Your task to perform on an android device: Open Youtube and go to the subscriptions tab Image 0: 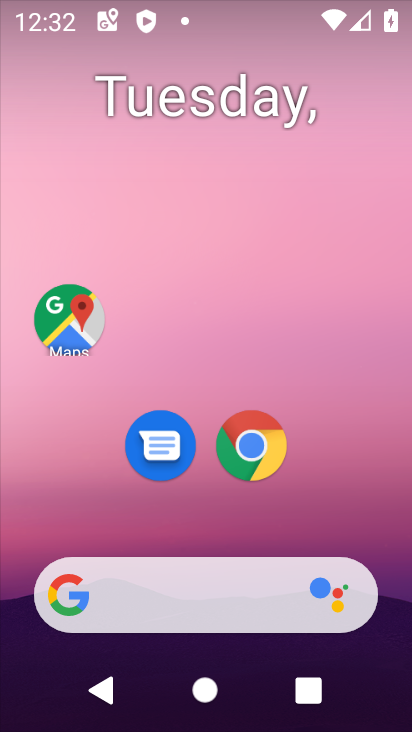
Step 0: drag from (328, 477) to (373, 16)
Your task to perform on an android device: Open Youtube and go to the subscriptions tab Image 1: 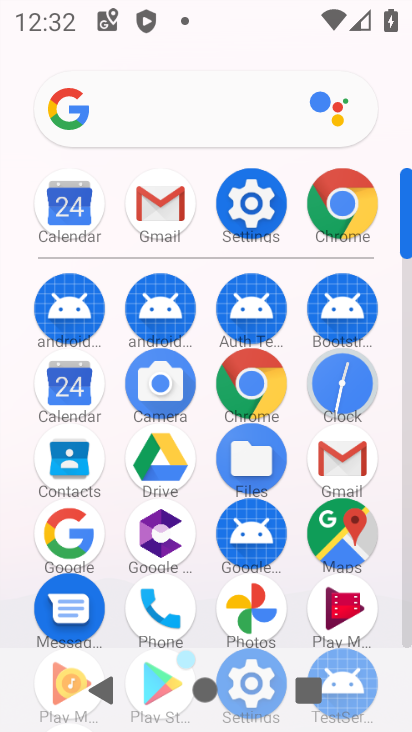
Step 1: drag from (386, 597) to (378, 210)
Your task to perform on an android device: Open Youtube and go to the subscriptions tab Image 2: 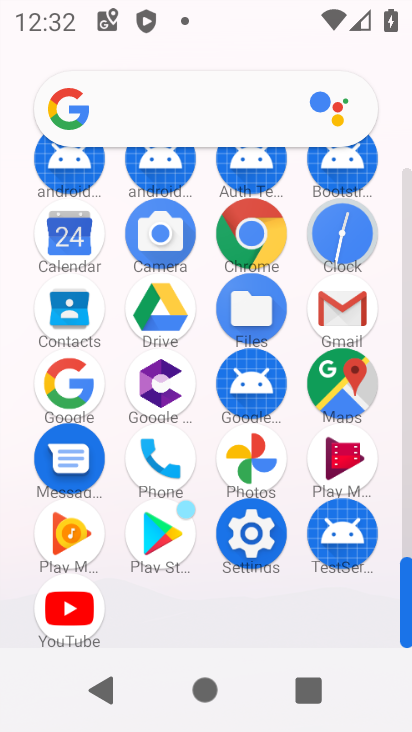
Step 2: click (65, 614)
Your task to perform on an android device: Open Youtube and go to the subscriptions tab Image 3: 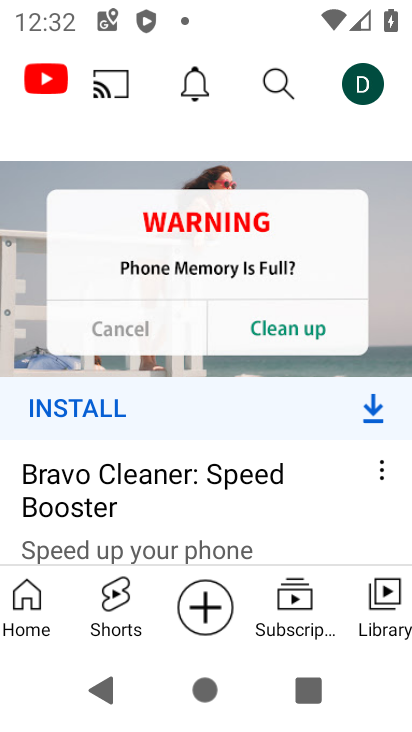
Step 3: click (302, 605)
Your task to perform on an android device: Open Youtube and go to the subscriptions tab Image 4: 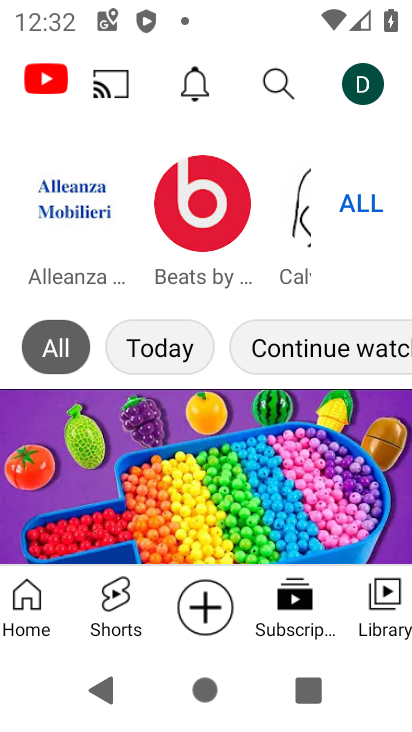
Step 4: task complete